Your task to perform on an android device: delete the emails in spam in the gmail app Image 0: 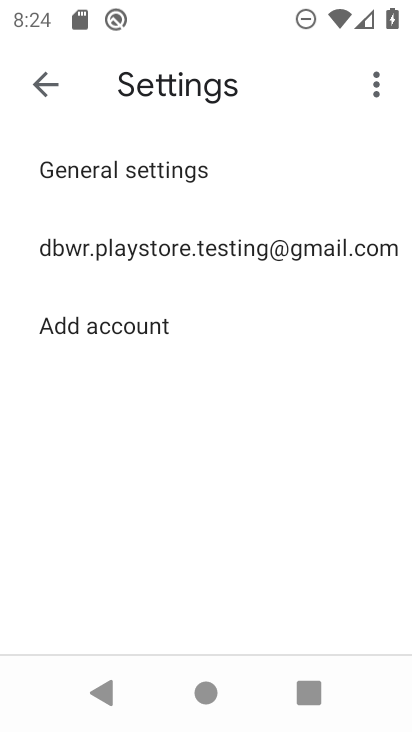
Step 0: press home button
Your task to perform on an android device: delete the emails in spam in the gmail app Image 1: 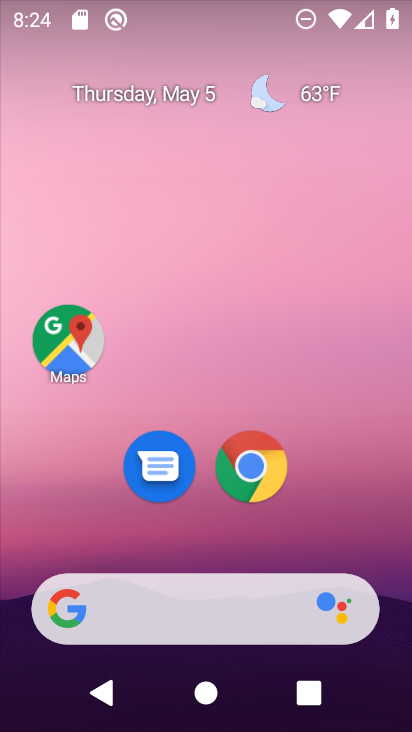
Step 1: drag from (227, 636) to (152, 94)
Your task to perform on an android device: delete the emails in spam in the gmail app Image 2: 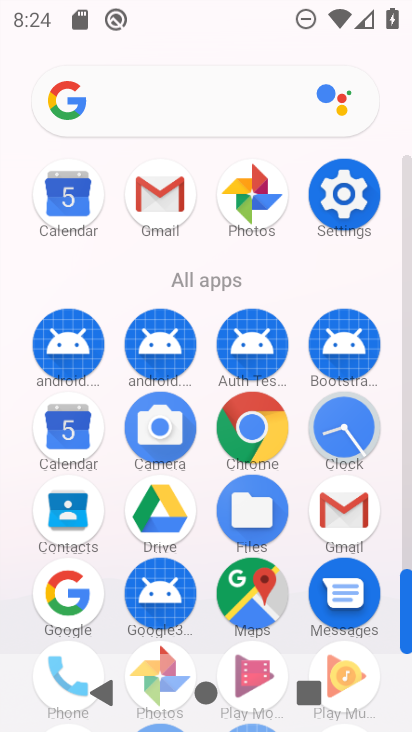
Step 2: click (162, 224)
Your task to perform on an android device: delete the emails in spam in the gmail app Image 3: 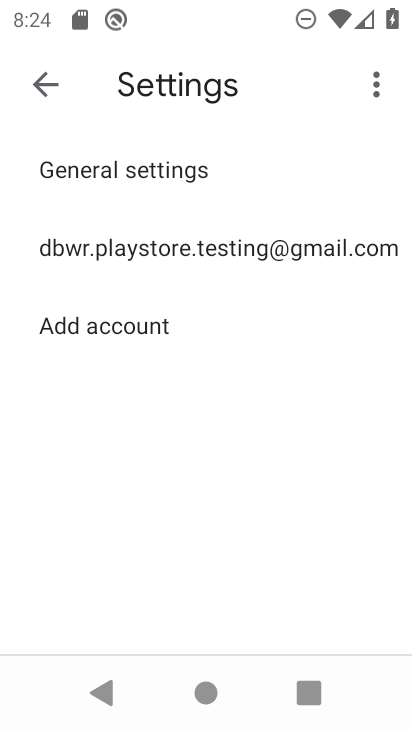
Step 3: press back button
Your task to perform on an android device: delete the emails in spam in the gmail app Image 4: 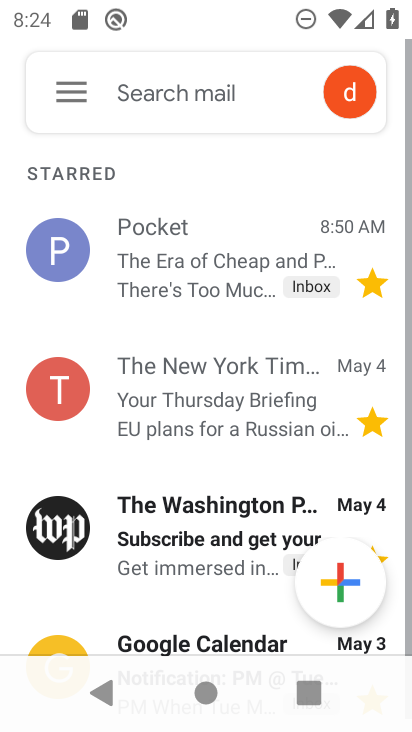
Step 4: click (71, 84)
Your task to perform on an android device: delete the emails in spam in the gmail app Image 5: 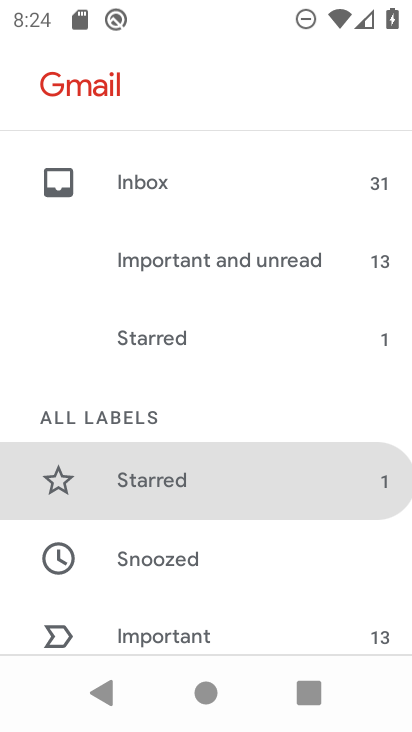
Step 5: drag from (165, 538) to (155, 132)
Your task to perform on an android device: delete the emails in spam in the gmail app Image 6: 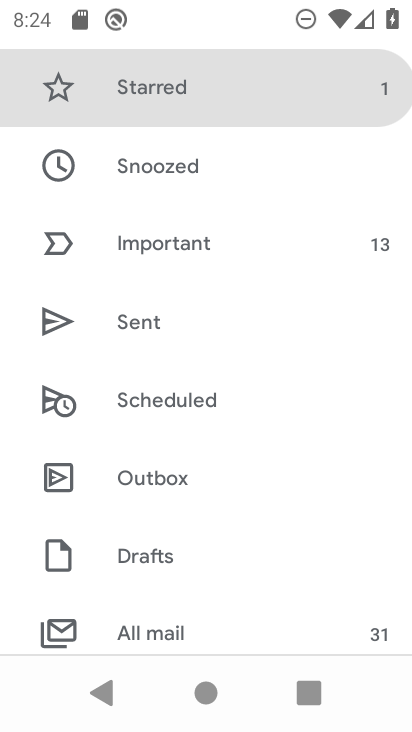
Step 6: drag from (241, 535) to (239, 116)
Your task to perform on an android device: delete the emails in spam in the gmail app Image 7: 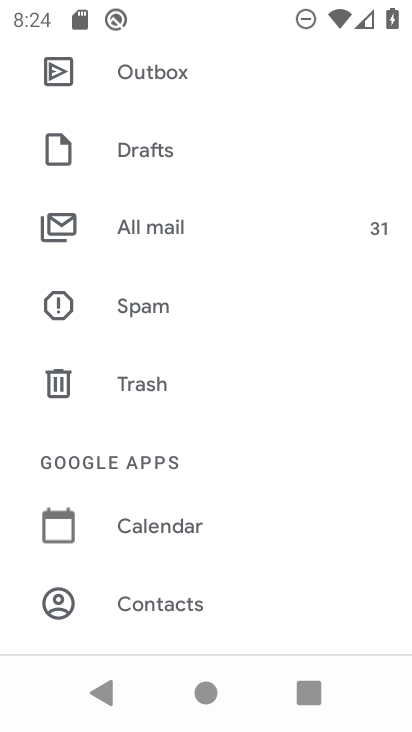
Step 7: click (144, 316)
Your task to perform on an android device: delete the emails in spam in the gmail app Image 8: 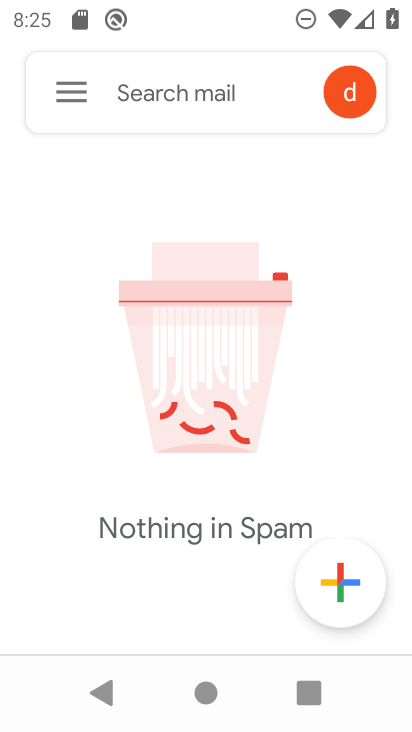
Step 8: task complete